Your task to perform on an android device: What's the weather today? Image 0: 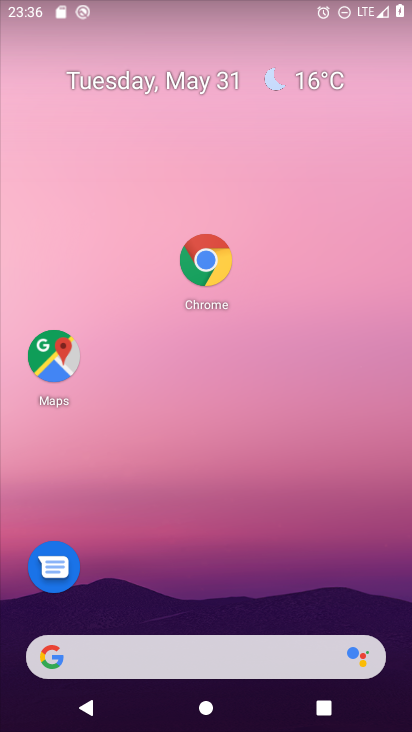
Step 0: drag from (178, 553) to (178, 321)
Your task to perform on an android device: What's the weather today? Image 1: 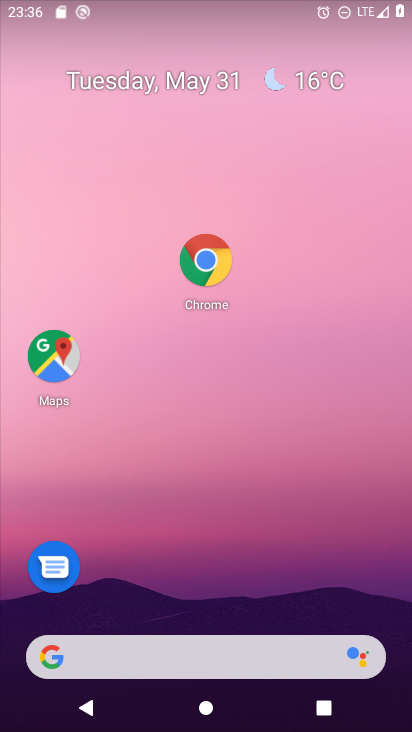
Step 1: drag from (182, 602) to (175, 388)
Your task to perform on an android device: What's the weather today? Image 2: 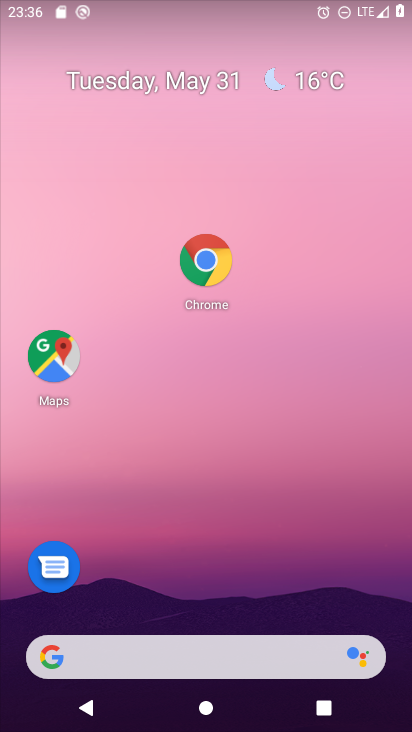
Step 2: drag from (188, 628) to (188, 255)
Your task to perform on an android device: What's the weather today? Image 3: 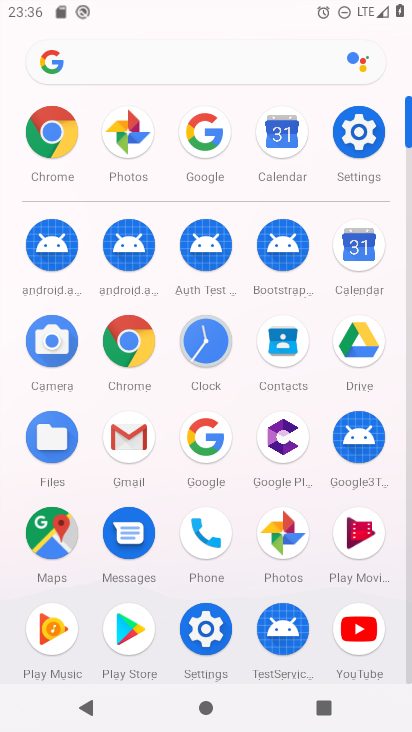
Step 3: click (194, 444)
Your task to perform on an android device: What's the weather today? Image 4: 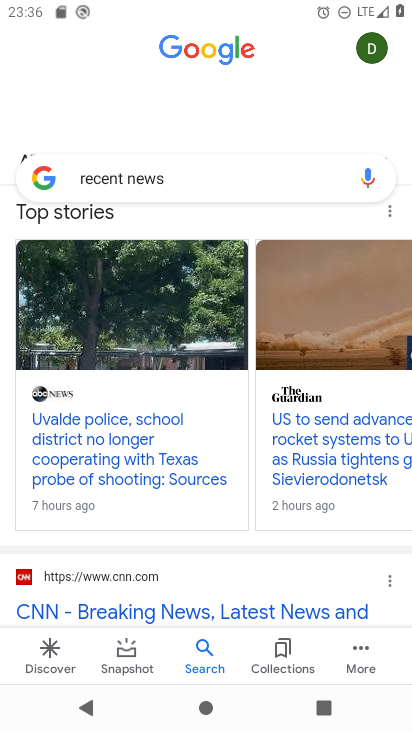
Step 4: click (177, 179)
Your task to perform on an android device: What's the weather today? Image 5: 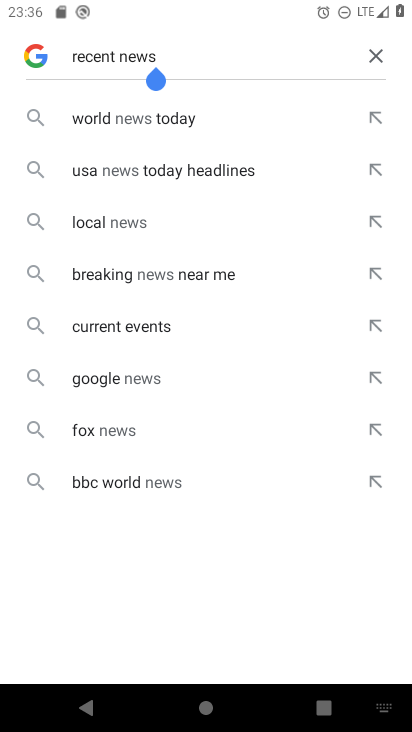
Step 5: click (372, 53)
Your task to perform on an android device: What's the weather today? Image 6: 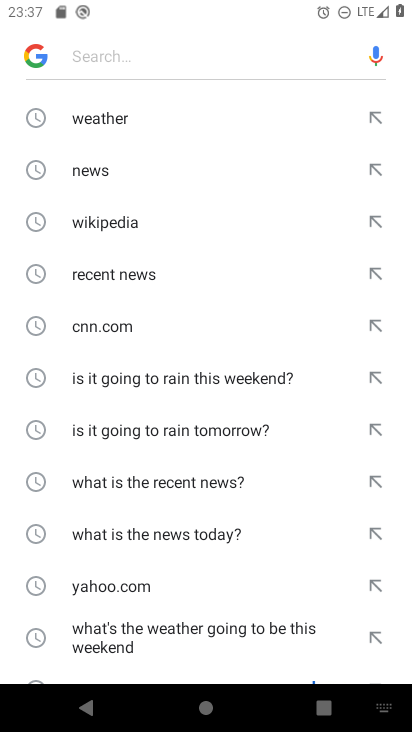
Step 6: click (62, 124)
Your task to perform on an android device: What's the weather today? Image 7: 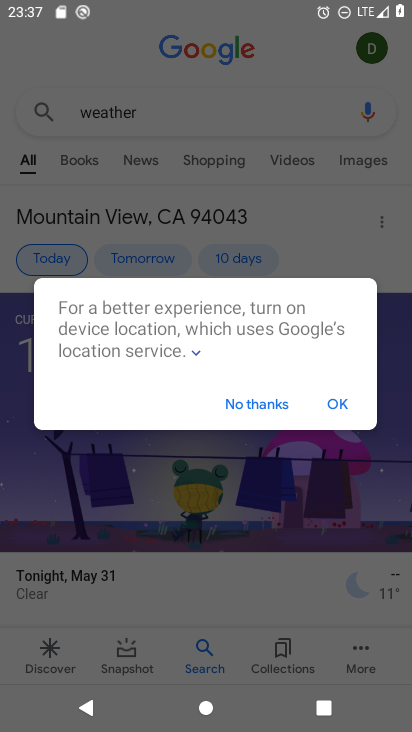
Step 7: task complete